Your task to perform on an android device: View the shopping cart on ebay. Add alienware area 51 to the cart on ebay Image 0: 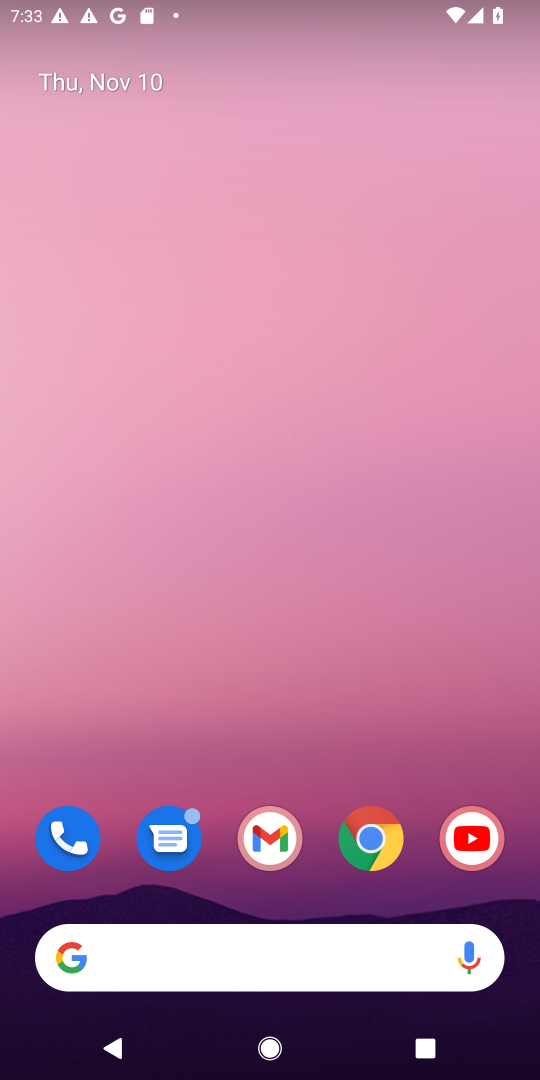
Step 0: drag from (290, 918) to (321, 147)
Your task to perform on an android device: View the shopping cart on ebay. Add alienware area 51 to the cart on ebay Image 1: 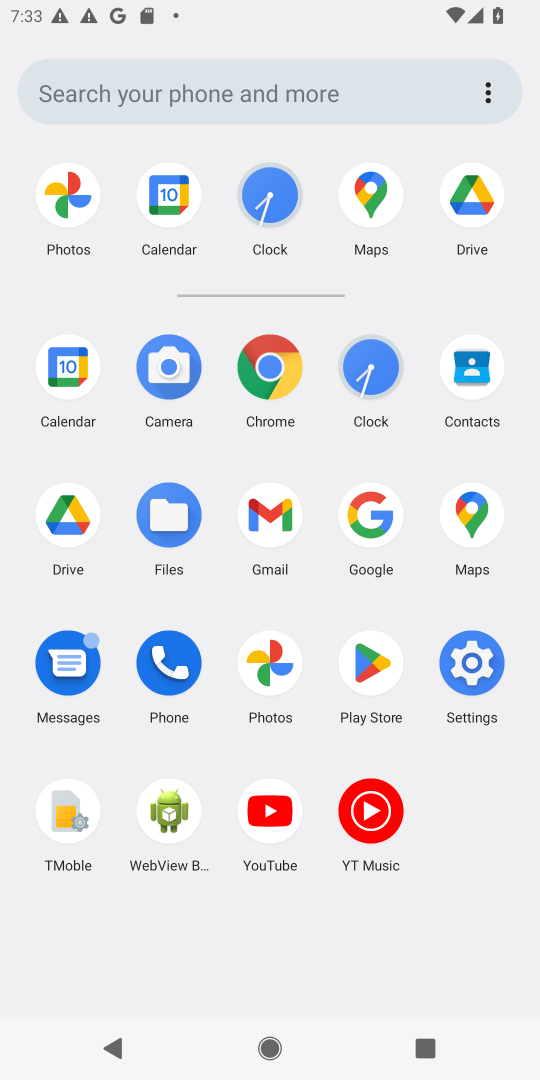
Step 1: click (266, 373)
Your task to perform on an android device: View the shopping cart on ebay. Add alienware area 51 to the cart on ebay Image 2: 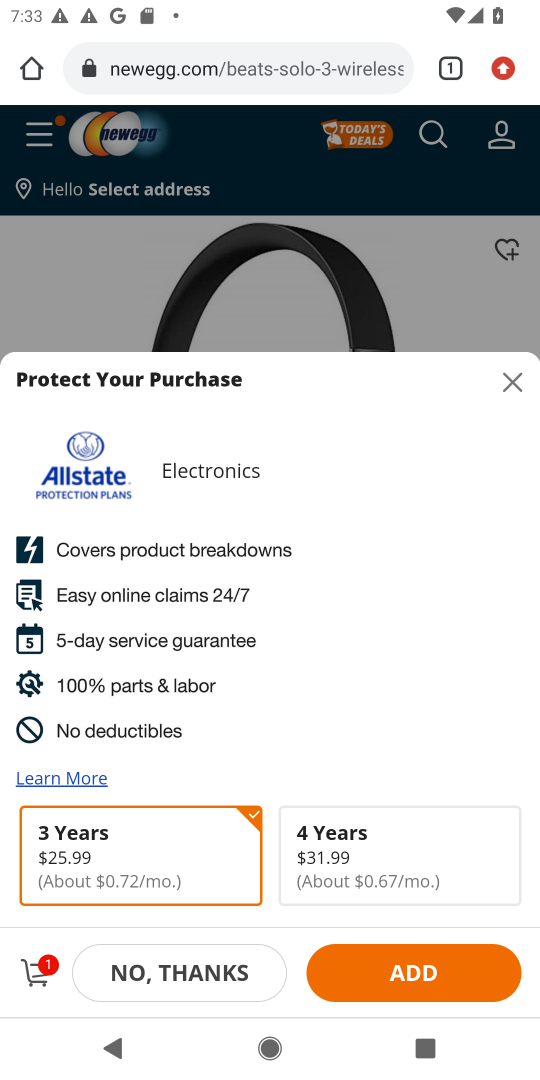
Step 2: click (314, 71)
Your task to perform on an android device: View the shopping cart on ebay. Add alienware area 51 to the cart on ebay Image 3: 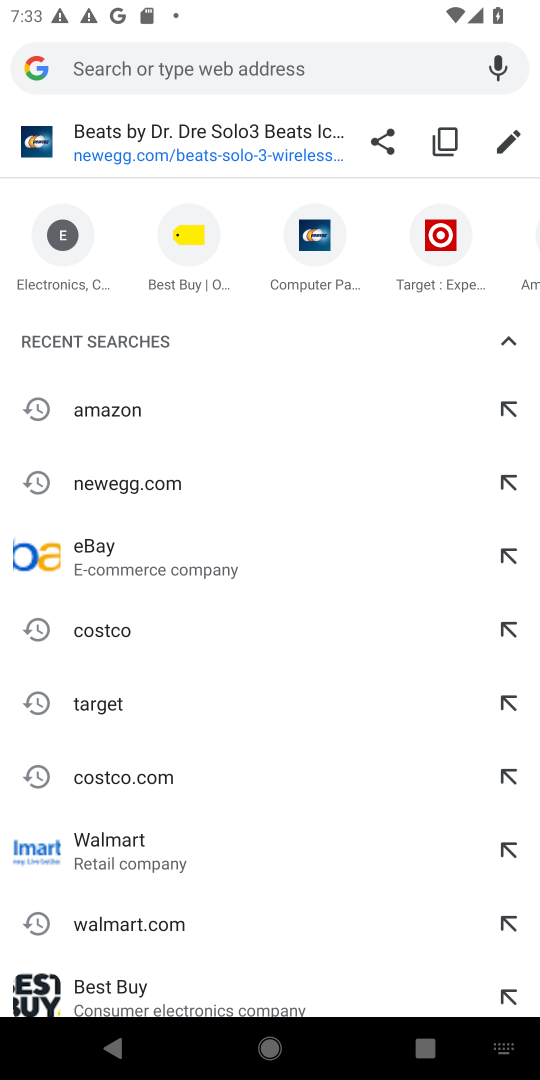
Step 3: type "ebay.com"
Your task to perform on an android device: View the shopping cart on ebay. Add alienware area 51 to the cart on ebay Image 4: 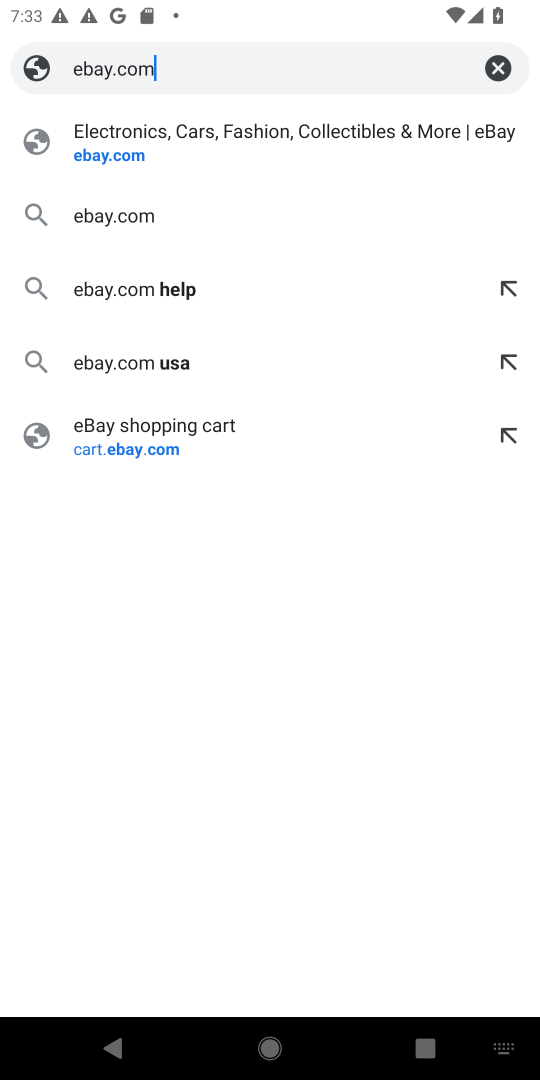
Step 4: press enter
Your task to perform on an android device: View the shopping cart on ebay. Add alienware area 51 to the cart on ebay Image 5: 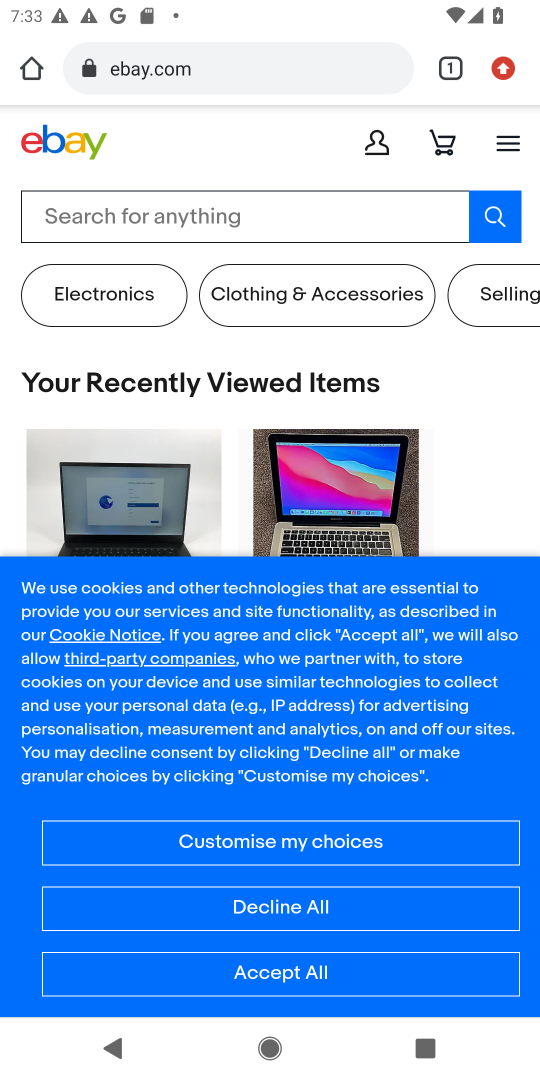
Step 5: click (452, 139)
Your task to perform on an android device: View the shopping cart on ebay. Add alienware area 51 to the cart on ebay Image 6: 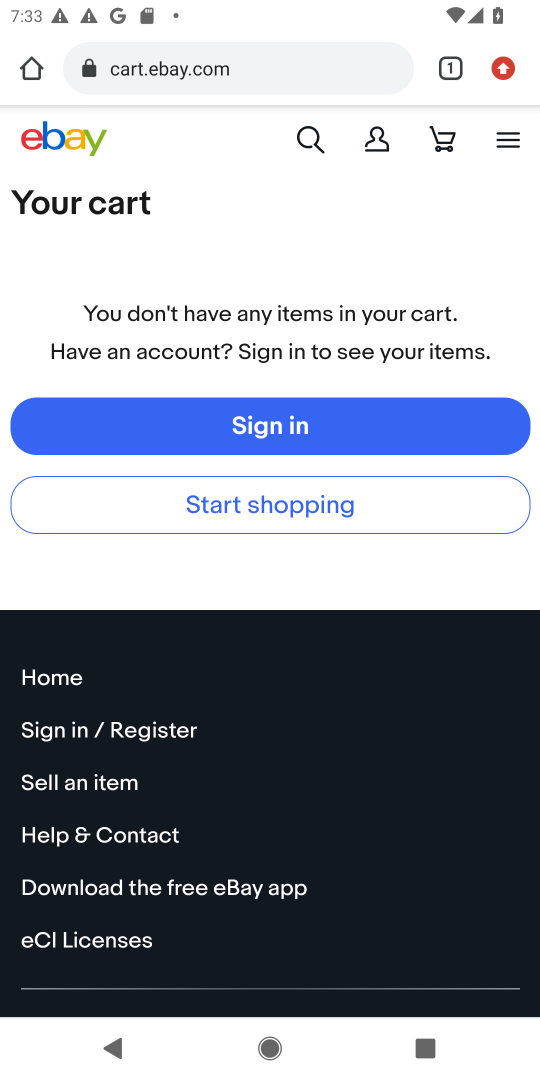
Step 6: click (314, 143)
Your task to perform on an android device: View the shopping cart on ebay. Add alienware area 51 to the cart on ebay Image 7: 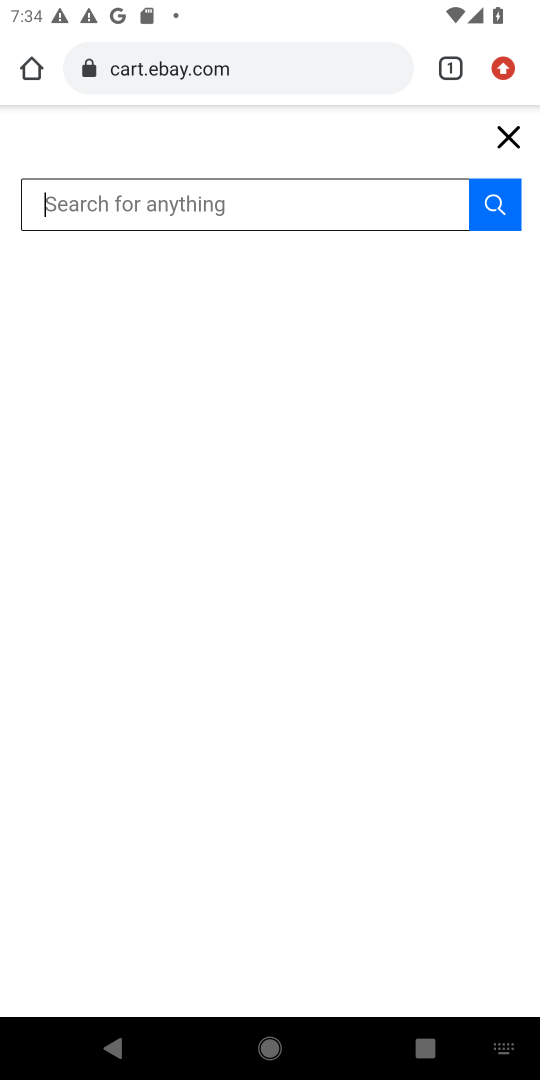
Step 7: type "alienware area 51"
Your task to perform on an android device: View the shopping cart on ebay. Add alienware area 51 to the cart on ebay Image 8: 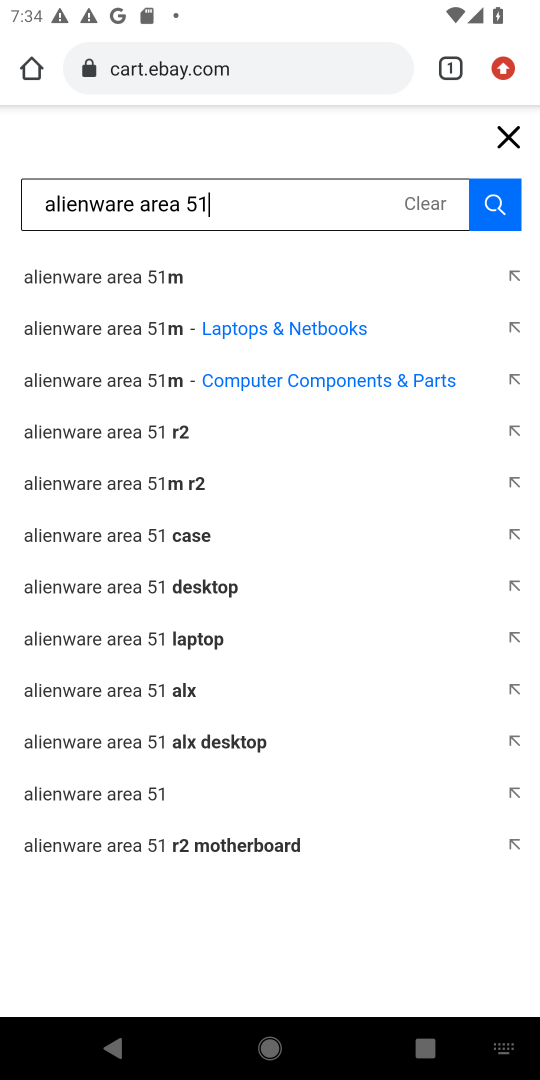
Step 8: press enter
Your task to perform on an android device: View the shopping cart on ebay. Add alienware area 51 to the cart on ebay Image 9: 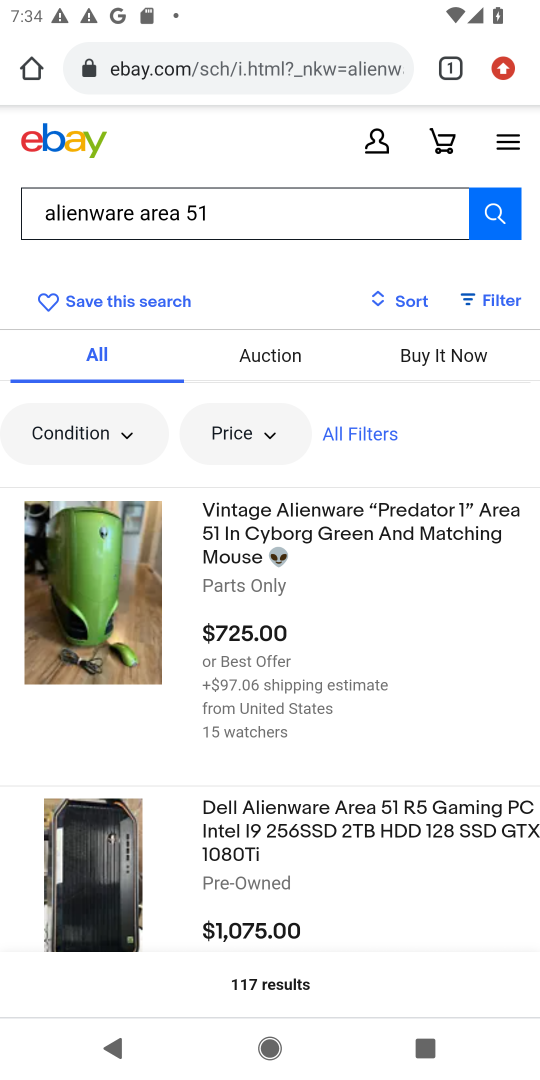
Step 9: click (120, 591)
Your task to perform on an android device: View the shopping cart on ebay. Add alienware area 51 to the cart on ebay Image 10: 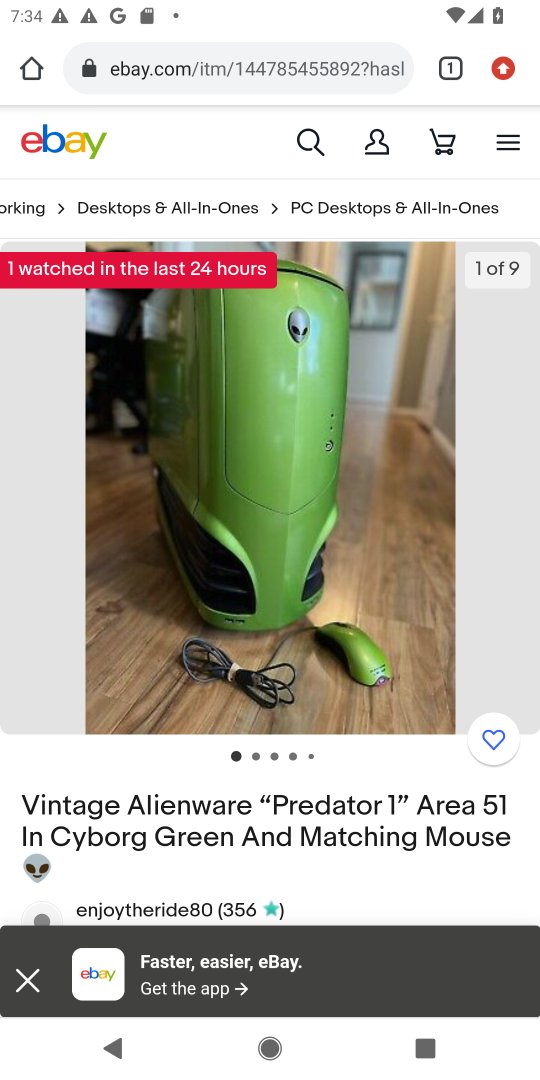
Step 10: drag from (271, 580) to (264, 167)
Your task to perform on an android device: View the shopping cart on ebay. Add alienware area 51 to the cart on ebay Image 11: 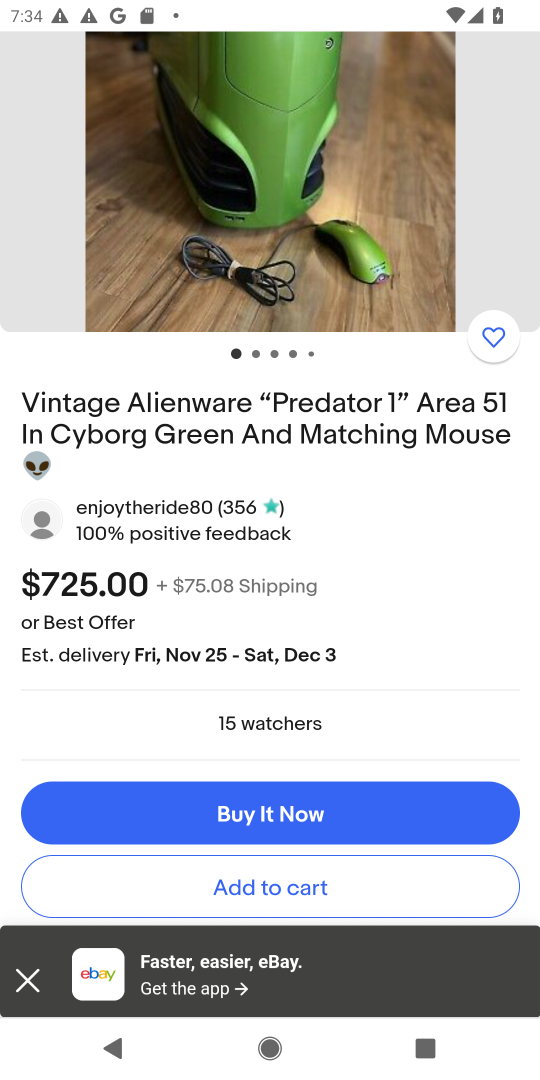
Step 11: click (324, 900)
Your task to perform on an android device: View the shopping cart on ebay. Add alienware area 51 to the cart on ebay Image 12: 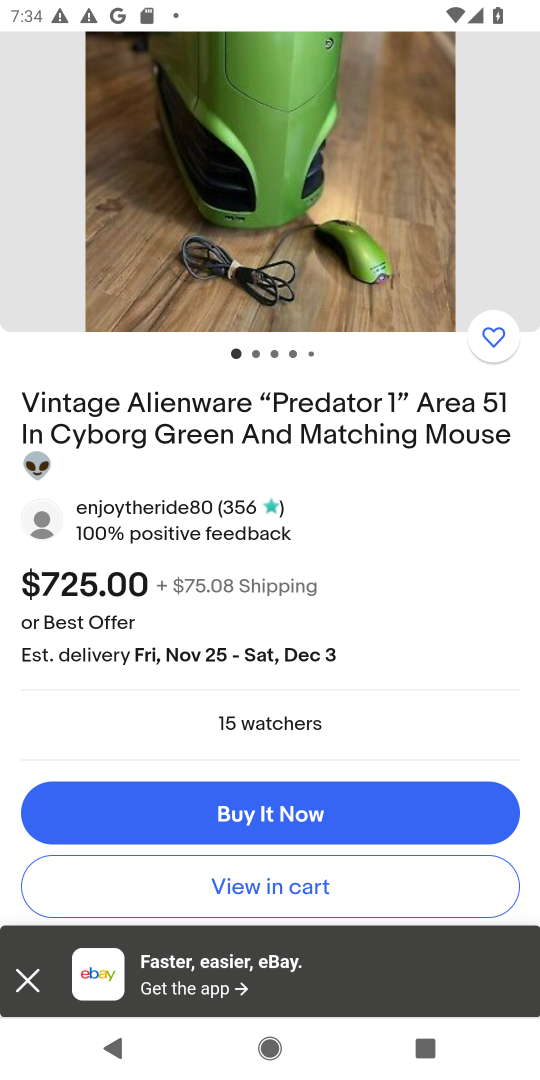
Step 12: task complete